Your task to perform on an android device: check the backup settings in the google photos Image 0: 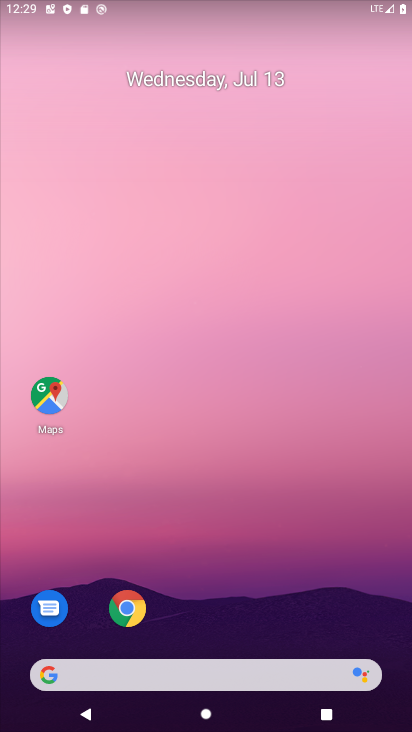
Step 0: drag from (247, 620) to (291, 51)
Your task to perform on an android device: check the backup settings in the google photos Image 1: 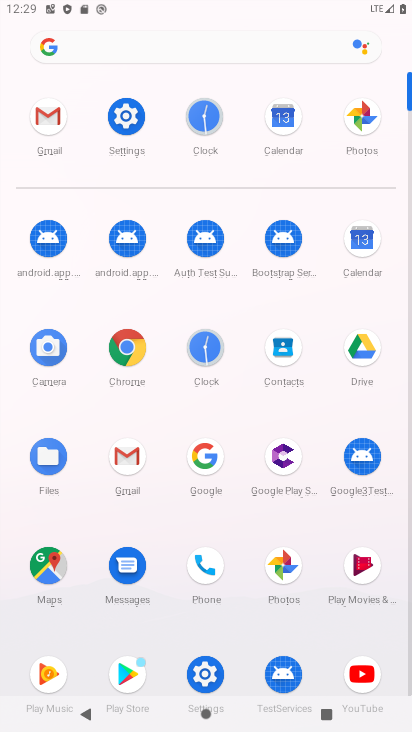
Step 1: click (288, 563)
Your task to perform on an android device: check the backup settings in the google photos Image 2: 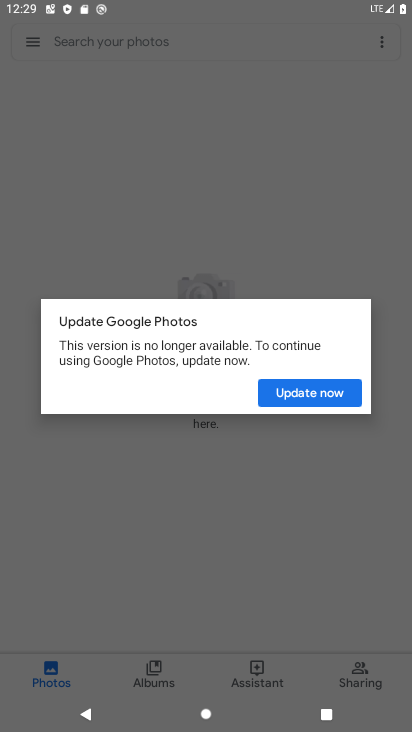
Step 2: click (306, 393)
Your task to perform on an android device: check the backup settings in the google photos Image 3: 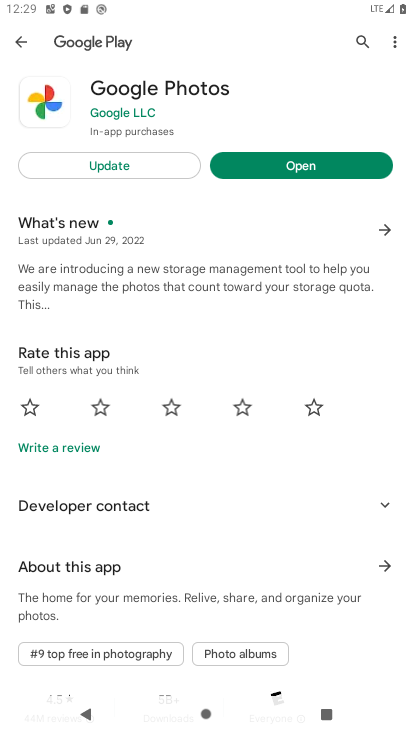
Step 3: click (294, 167)
Your task to perform on an android device: check the backup settings in the google photos Image 4: 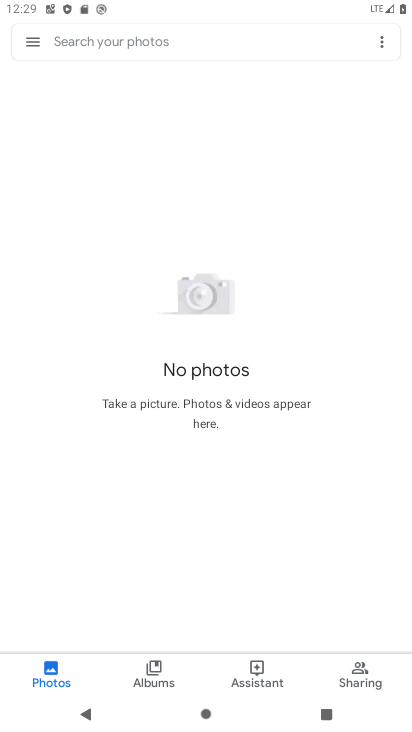
Step 4: click (44, 35)
Your task to perform on an android device: check the backup settings in the google photos Image 5: 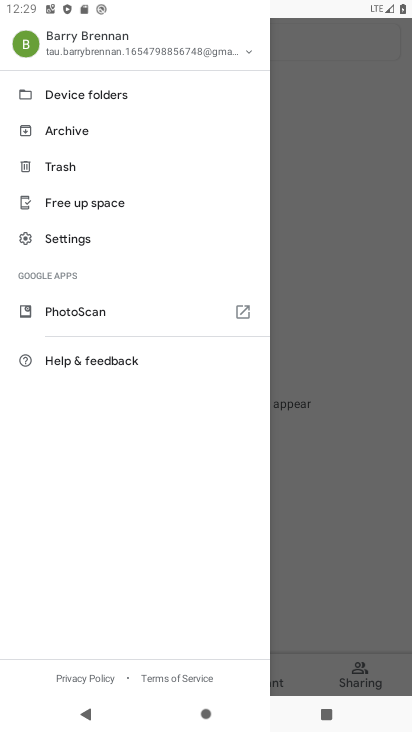
Step 5: click (94, 237)
Your task to perform on an android device: check the backup settings in the google photos Image 6: 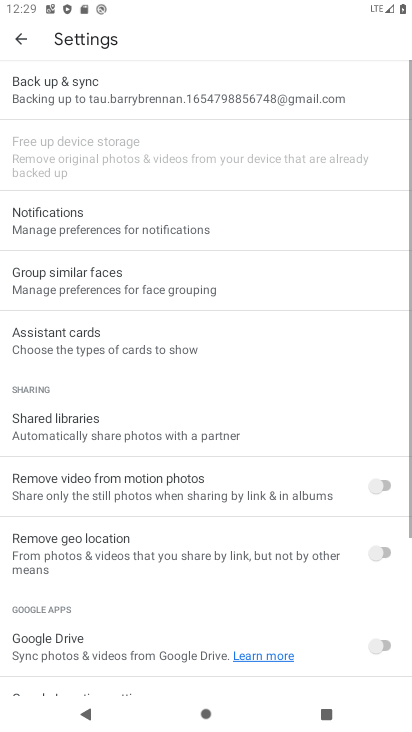
Step 6: click (87, 94)
Your task to perform on an android device: check the backup settings in the google photos Image 7: 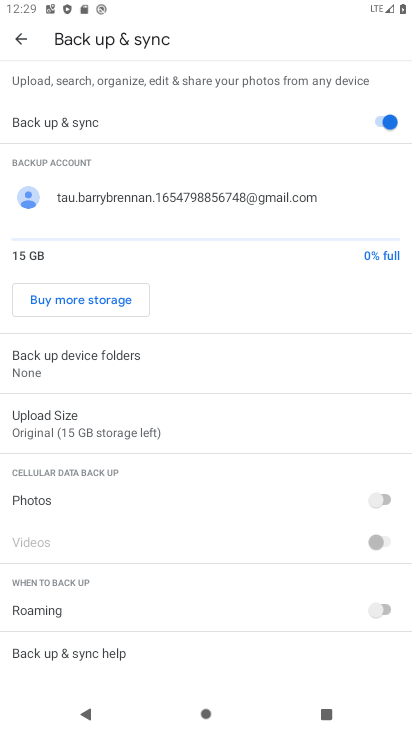
Step 7: task complete